Your task to perform on an android device: set default search engine in the chrome app Image 0: 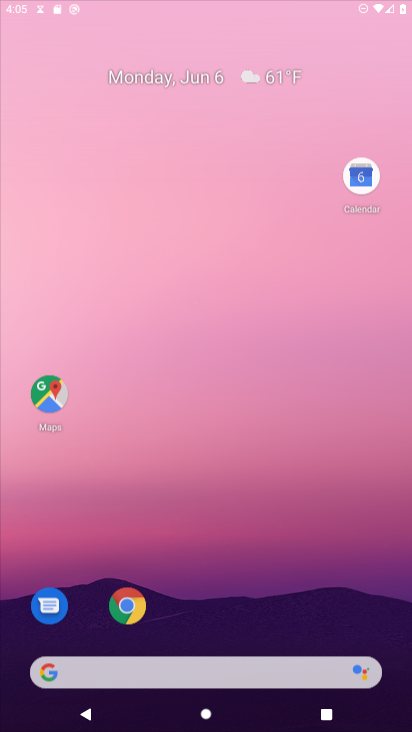
Step 0: click (293, 58)
Your task to perform on an android device: set default search engine in the chrome app Image 1: 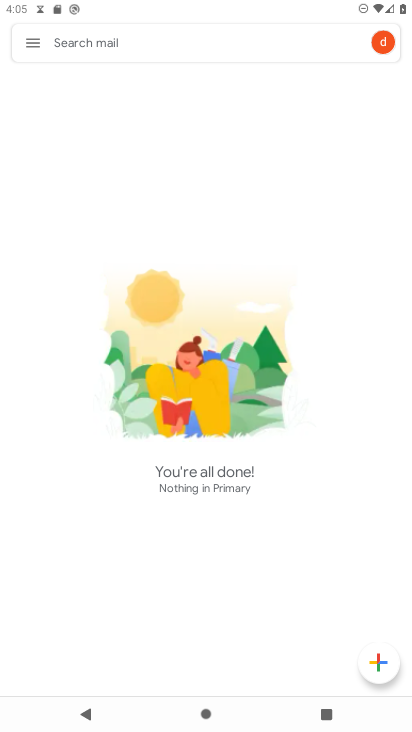
Step 1: press home button
Your task to perform on an android device: set default search engine in the chrome app Image 2: 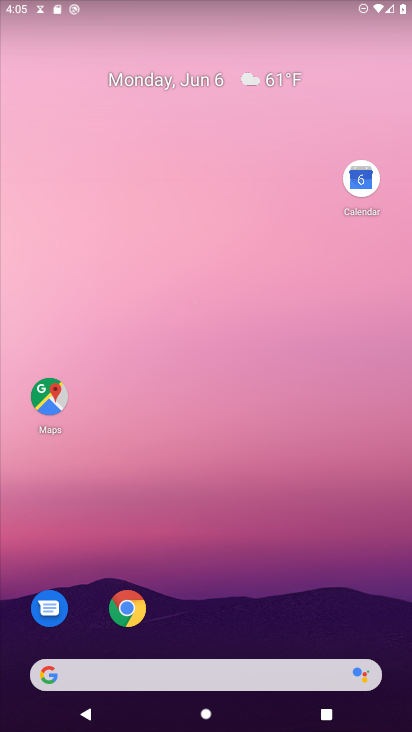
Step 2: click (131, 610)
Your task to perform on an android device: set default search engine in the chrome app Image 3: 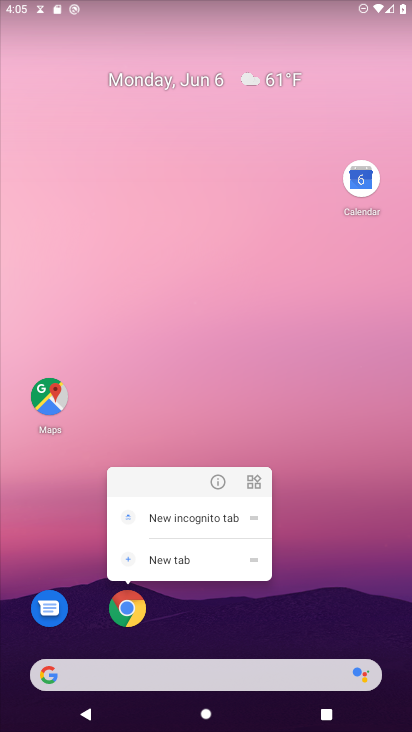
Step 3: click (131, 609)
Your task to perform on an android device: set default search engine in the chrome app Image 4: 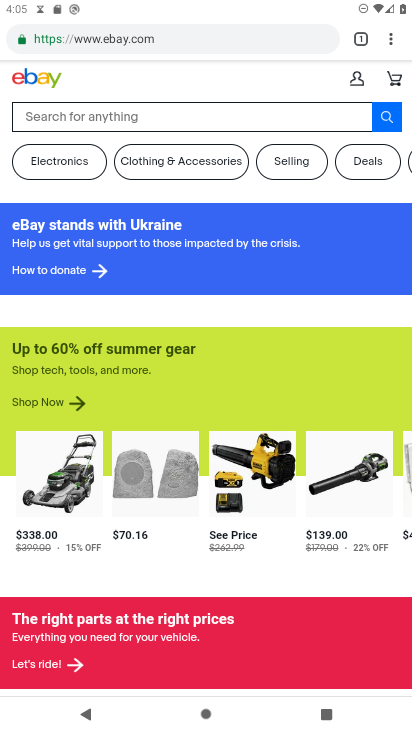
Step 4: click (381, 30)
Your task to perform on an android device: set default search engine in the chrome app Image 5: 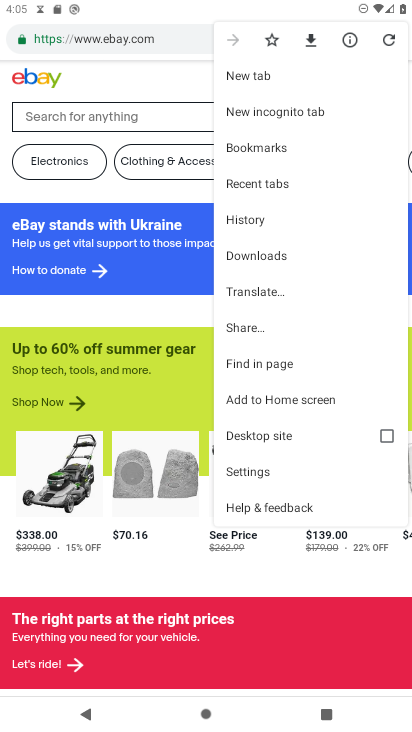
Step 5: click (275, 468)
Your task to perform on an android device: set default search engine in the chrome app Image 6: 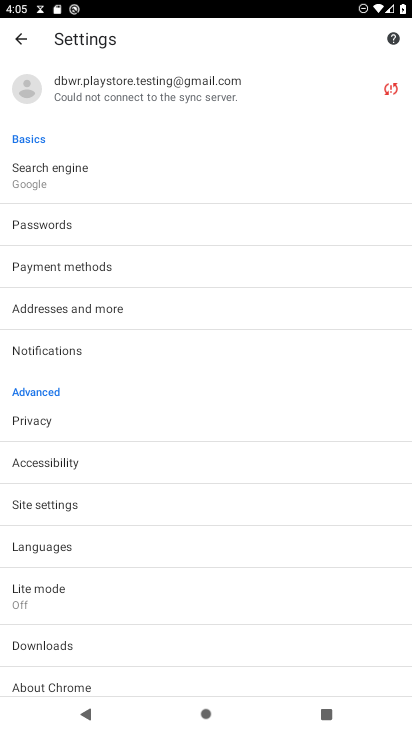
Step 6: click (21, 172)
Your task to perform on an android device: set default search engine in the chrome app Image 7: 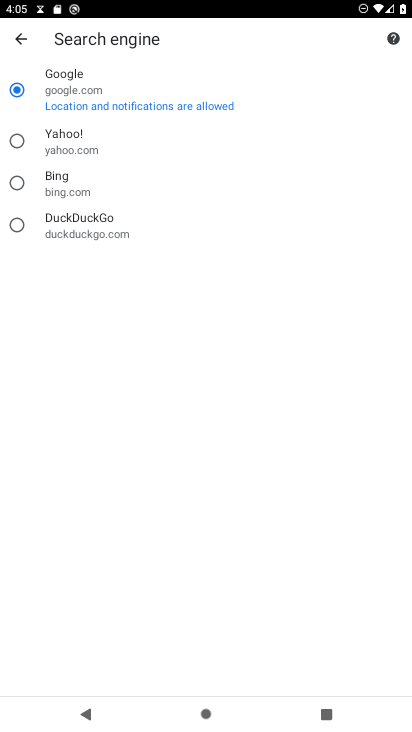
Step 7: click (66, 157)
Your task to perform on an android device: set default search engine in the chrome app Image 8: 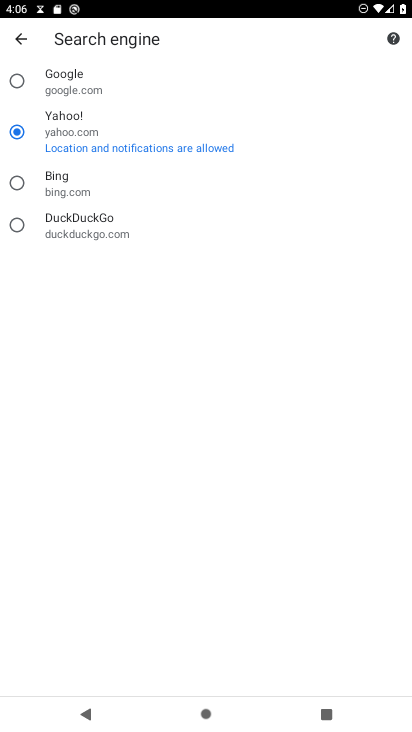
Step 8: task complete